Your task to perform on an android device: Open maps Image 0: 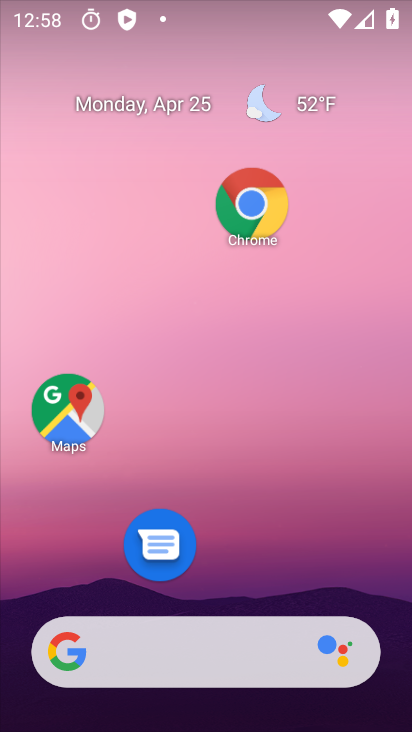
Step 0: drag from (304, 691) to (292, 115)
Your task to perform on an android device: Open maps Image 1: 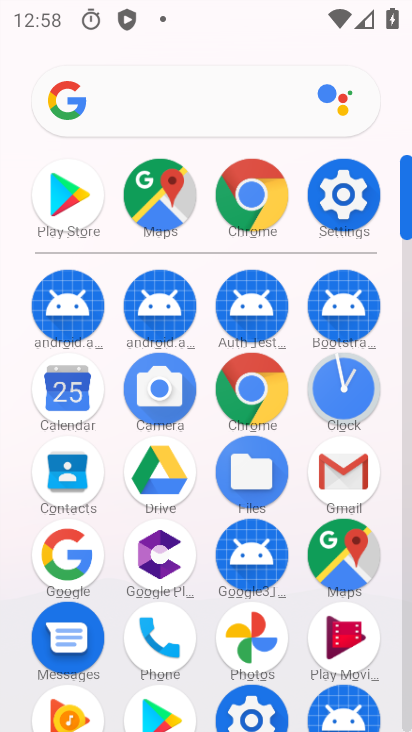
Step 1: click (162, 184)
Your task to perform on an android device: Open maps Image 2: 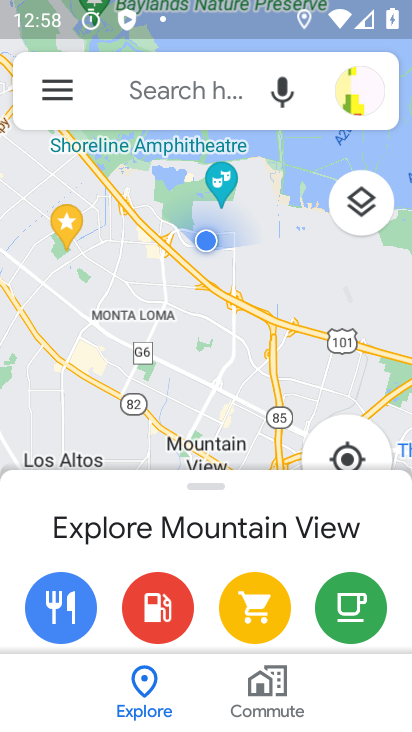
Step 2: click (336, 449)
Your task to perform on an android device: Open maps Image 3: 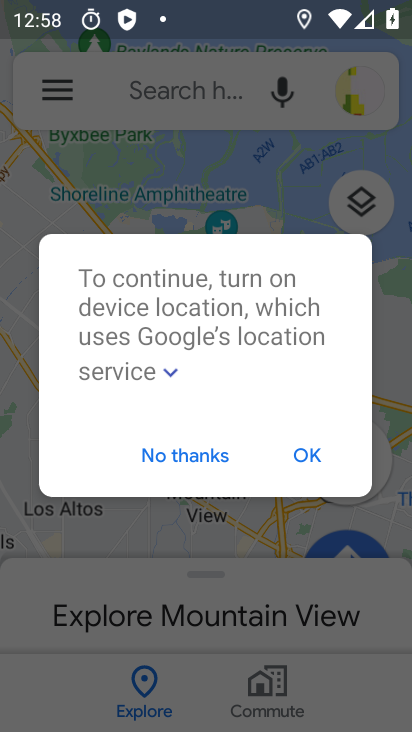
Step 3: click (197, 452)
Your task to perform on an android device: Open maps Image 4: 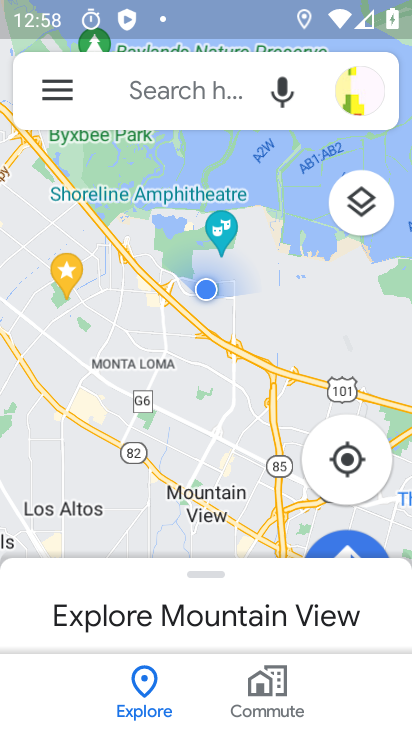
Step 4: task complete